Your task to perform on an android device: Go to calendar. Show me events next week Image 0: 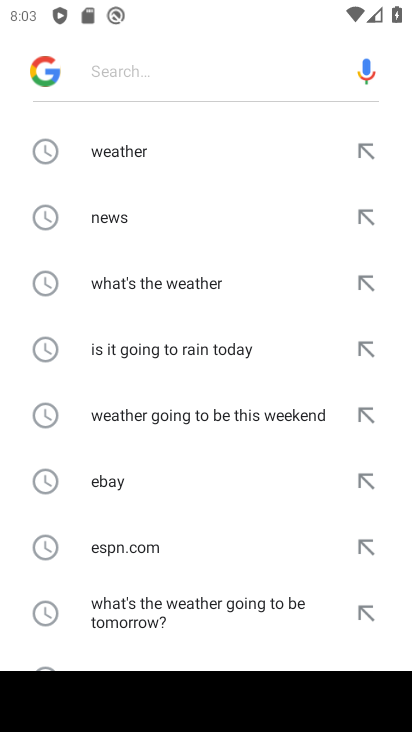
Step 0: press home button
Your task to perform on an android device: Go to calendar. Show me events next week Image 1: 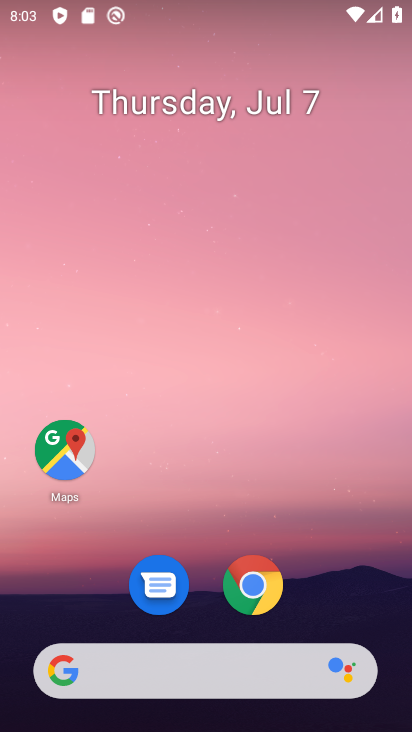
Step 1: drag from (215, 492) to (246, 0)
Your task to perform on an android device: Go to calendar. Show me events next week Image 2: 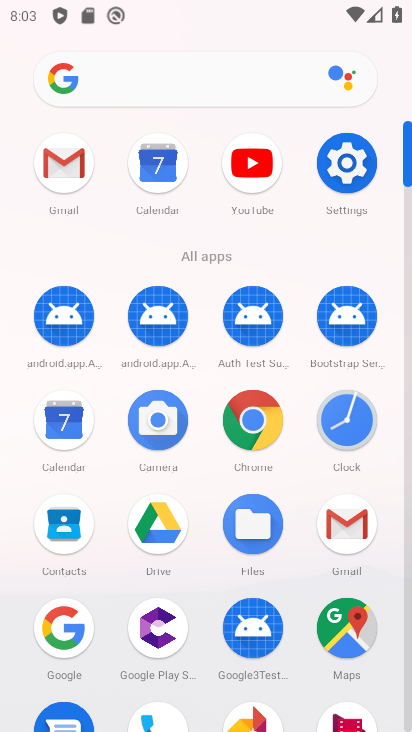
Step 2: click (161, 169)
Your task to perform on an android device: Go to calendar. Show me events next week Image 3: 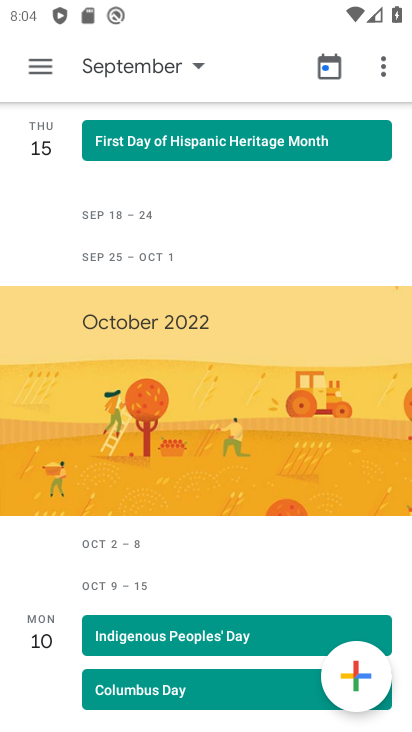
Step 3: drag from (293, 220) to (235, 634)
Your task to perform on an android device: Go to calendar. Show me events next week Image 4: 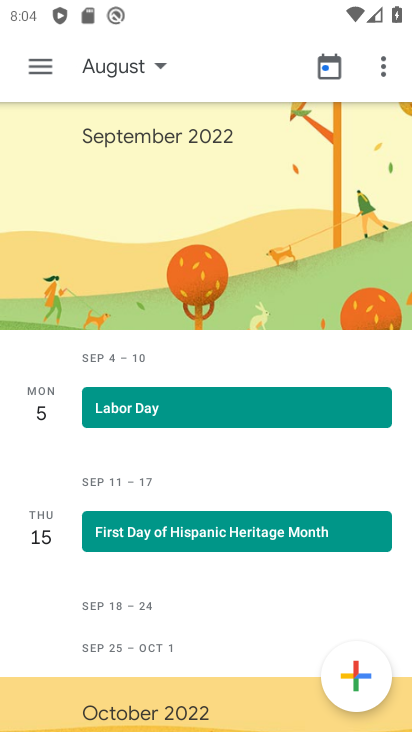
Step 4: drag from (281, 179) to (249, 583)
Your task to perform on an android device: Go to calendar. Show me events next week Image 5: 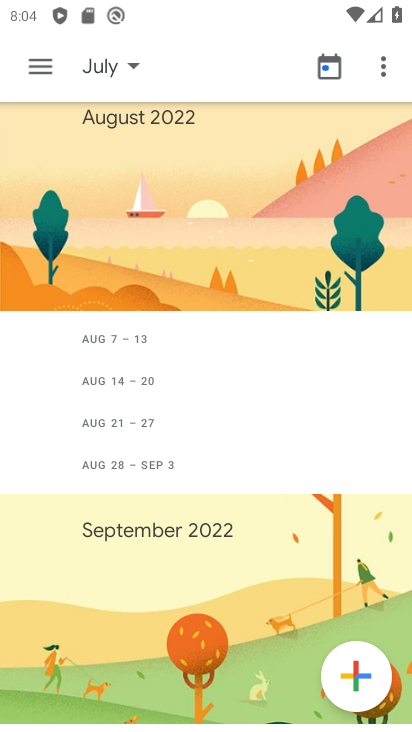
Step 5: drag from (262, 135) to (255, 557)
Your task to perform on an android device: Go to calendar. Show me events next week Image 6: 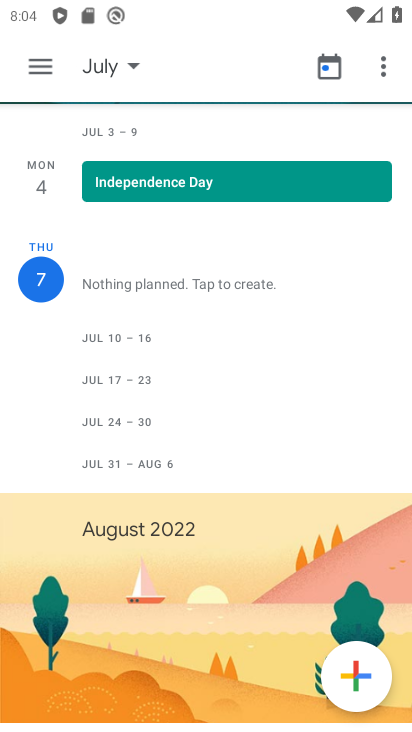
Step 6: drag from (272, 155) to (222, 299)
Your task to perform on an android device: Go to calendar. Show me events next week Image 7: 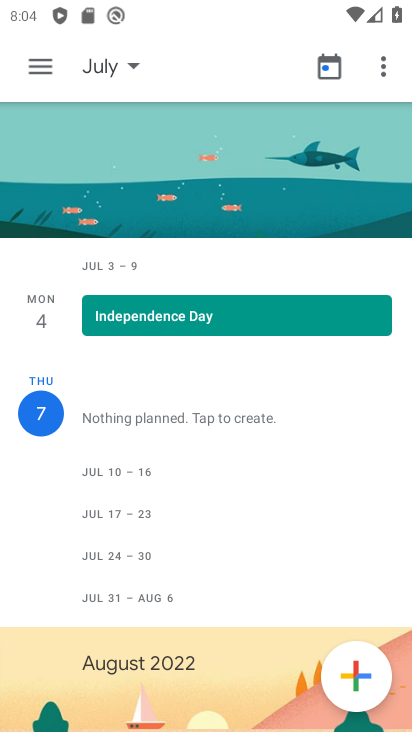
Step 7: drag from (220, 502) to (274, 142)
Your task to perform on an android device: Go to calendar. Show me events next week Image 8: 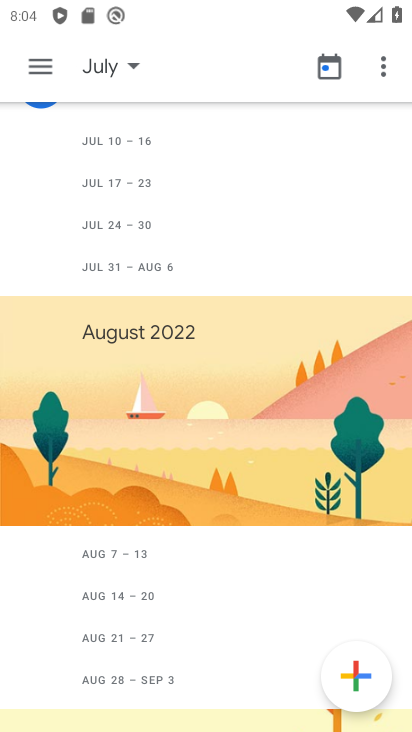
Step 8: click (40, 64)
Your task to perform on an android device: Go to calendar. Show me events next week Image 9: 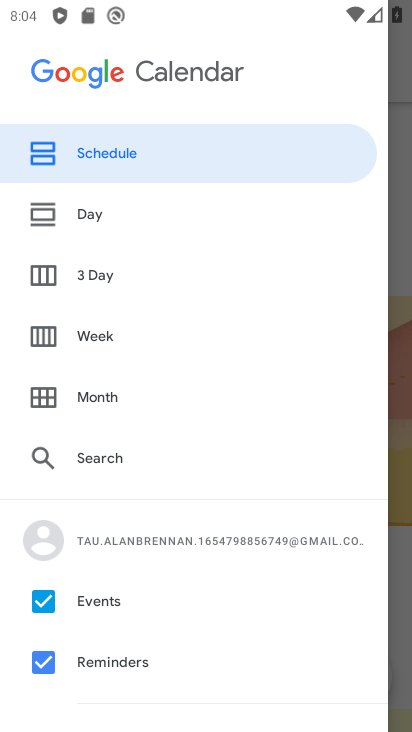
Step 9: click (48, 330)
Your task to perform on an android device: Go to calendar. Show me events next week Image 10: 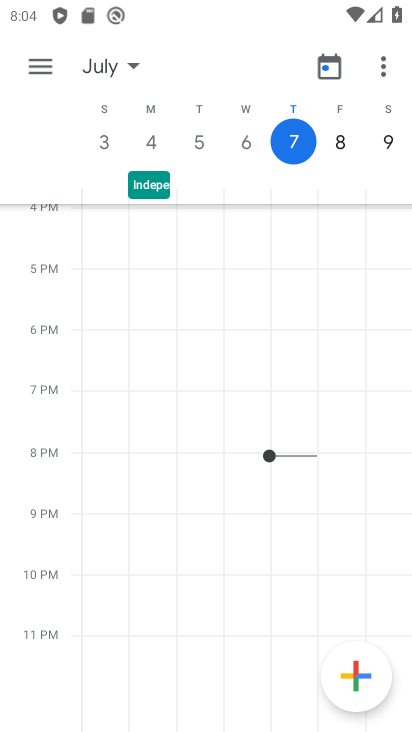
Step 10: task complete